Your task to perform on an android device: Open sound settings Image 0: 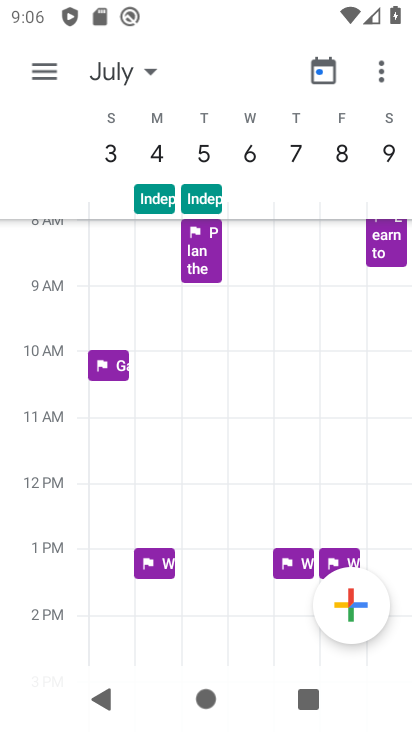
Step 0: press home button
Your task to perform on an android device: Open sound settings Image 1: 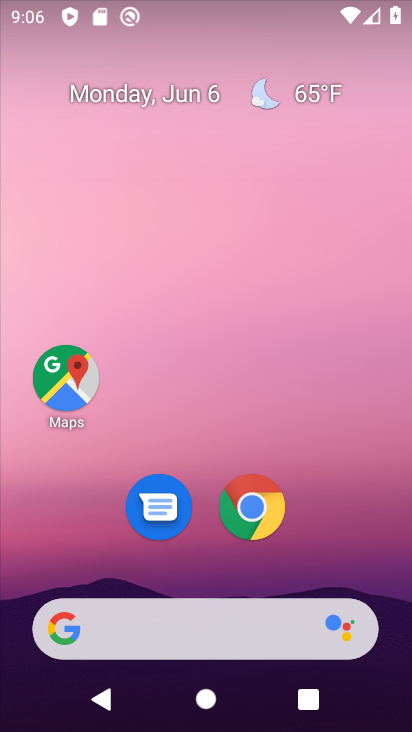
Step 1: drag from (276, 573) to (327, 166)
Your task to perform on an android device: Open sound settings Image 2: 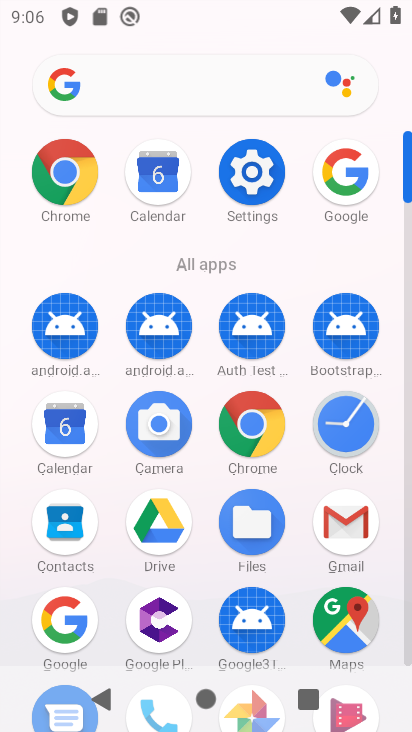
Step 2: click (239, 170)
Your task to perform on an android device: Open sound settings Image 3: 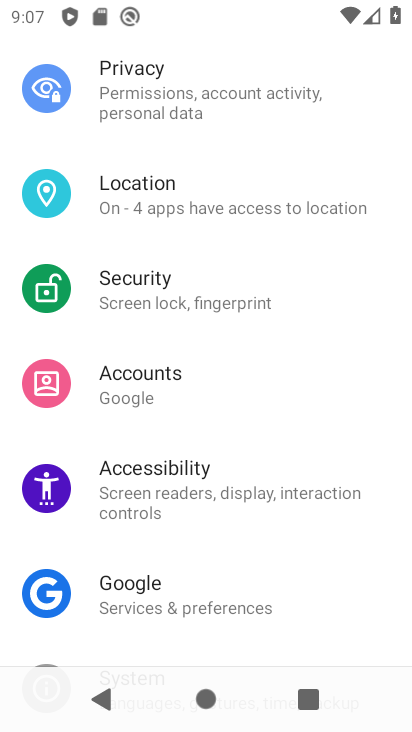
Step 3: drag from (217, 114) to (224, 501)
Your task to perform on an android device: Open sound settings Image 4: 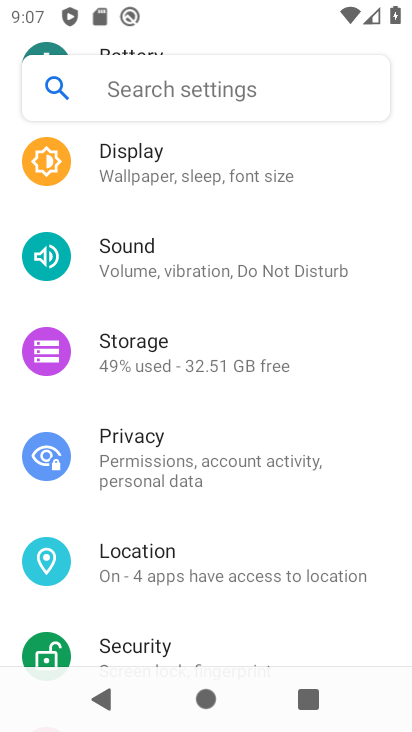
Step 4: click (195, 261)
Your task to perform on an android device: Open sound settings Image 5: 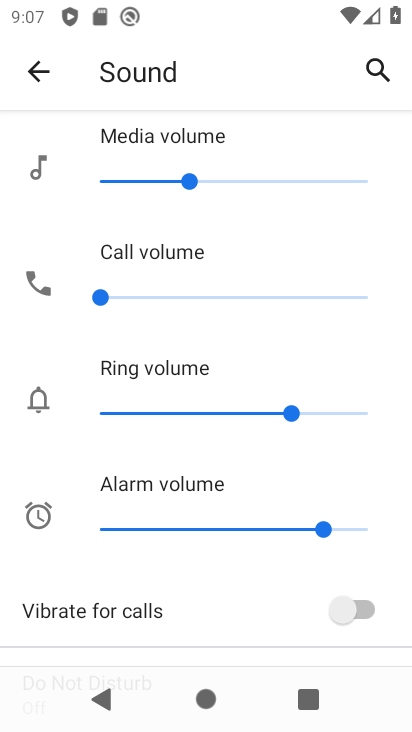
Step 5: task complete